Your task to perform on an android device: See recent photos Image 0: 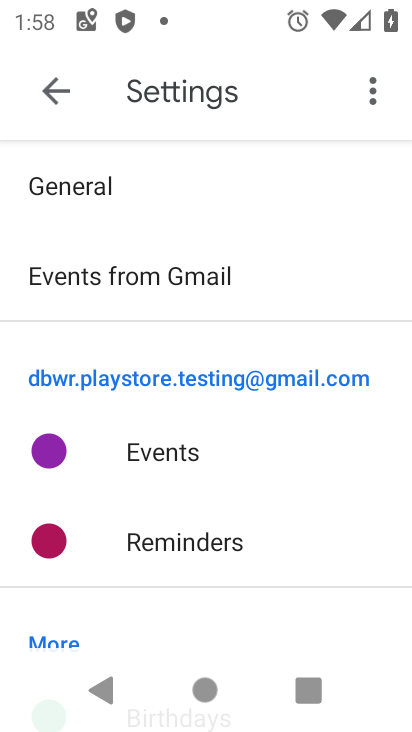
Step 0: press home button
Your task to perform on an android device: See recent photos Image 1: 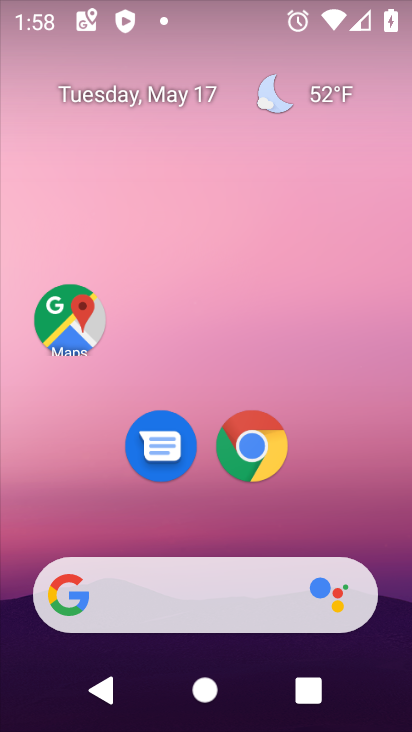
Step 1: drag from (165, 534) to (224, 66)
Your task to perform on an android device: See recent photos Image 2: 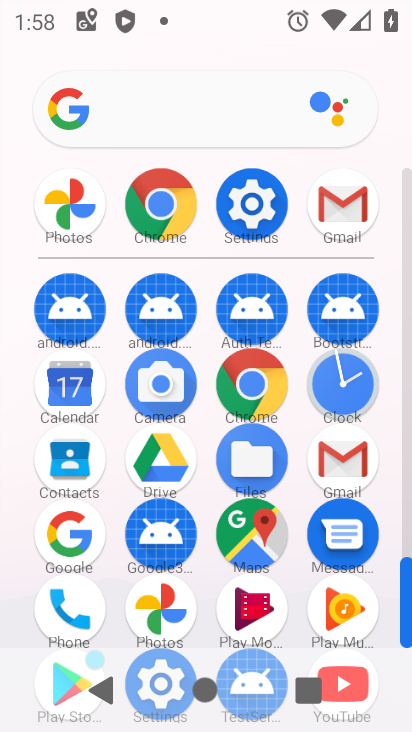
Step 2: click (157, 612)
Your task to perform on an android device: See recent photos Image 3: 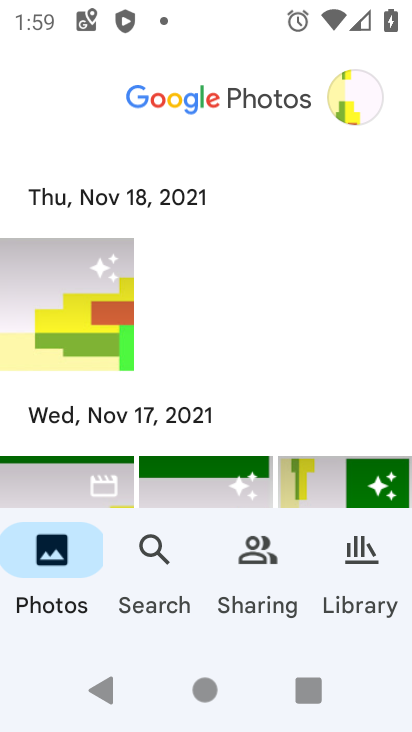
Step 3: task complete